Your task to perform on an android device: move a message to another label in the gmail app Image 0: 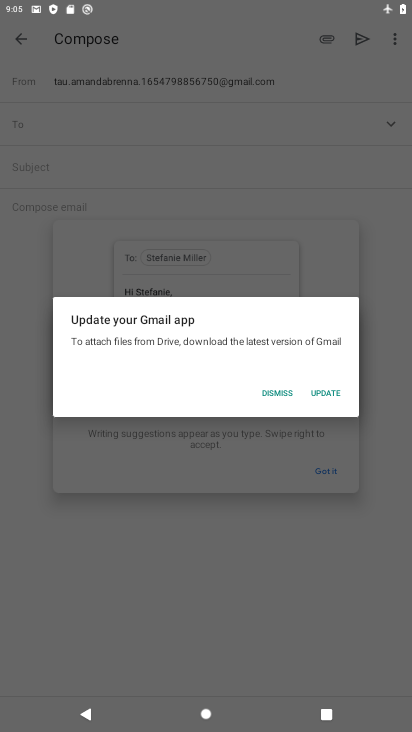
Step 0: press home button
Your task to perform on an android device: move a message to another label in the gmail app Image 1: 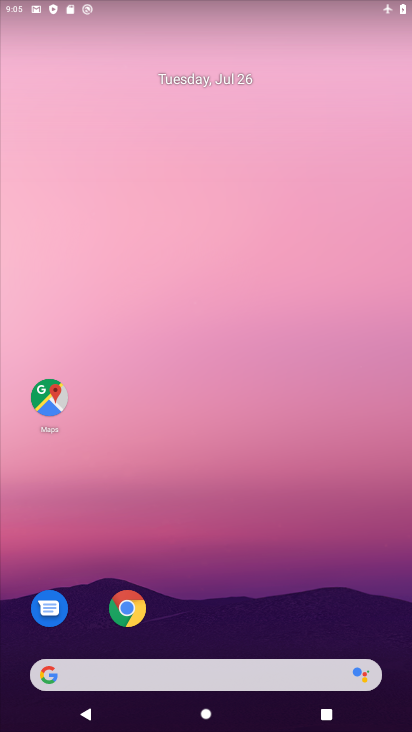
Step 1: drag from (243, 561) to (263, 233)
Your task to perform on an android device: move a message to another label in the gmail app Image 2: 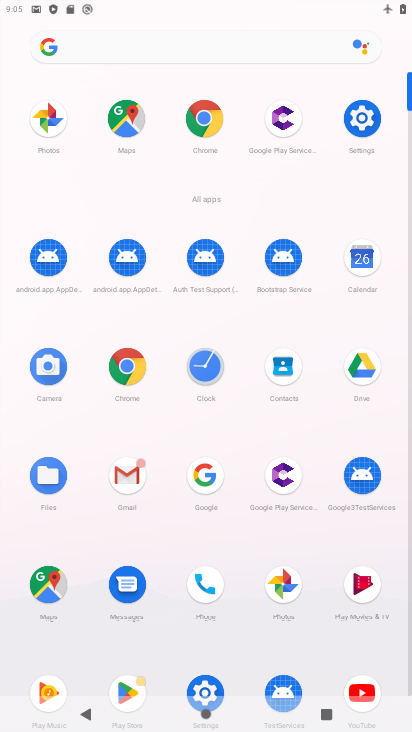
Step 2: click (139, 487)
Your task to perform on an android device: move a message to another label in the gmail app Image 3: 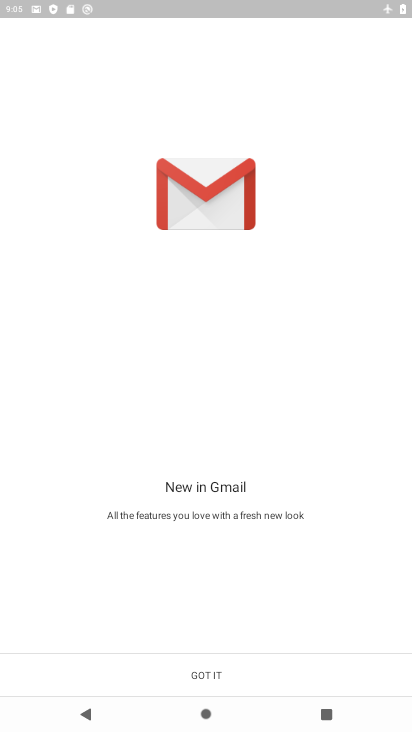
Step 3: click (265, 670)
Your task to perform on an android device: move a message to another label in the gmail app Image 4: 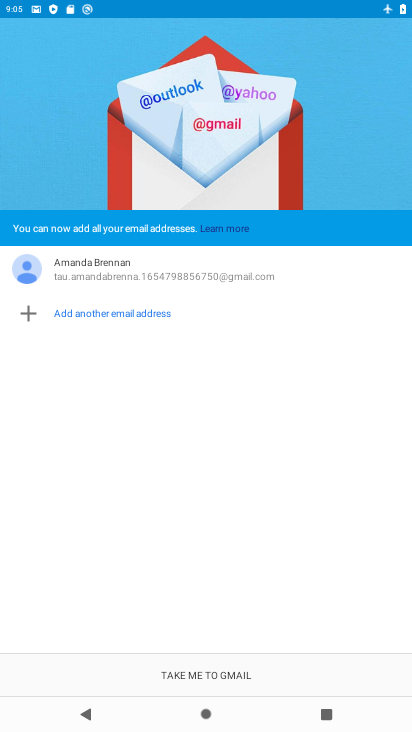
Step 4: click (268, 665)
Your task to perform on an android device: move a message to another label in the gmail app Image 5: 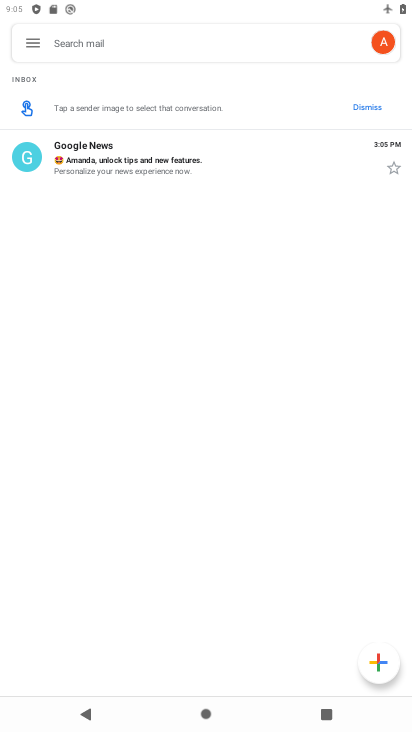
Step 5: click (208, 162)
Your task to perform on an android device: move a message to another label in the gmail app Image 6: 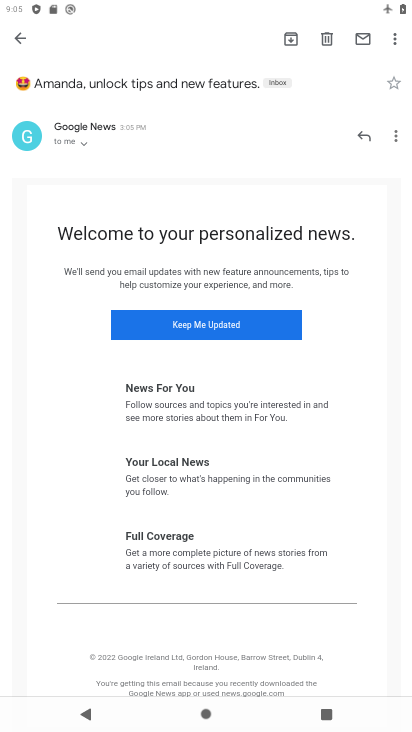
Step 6: click (393, 35)
Your task to perform on an android device: move a message to another label in the gmail app Image 7: 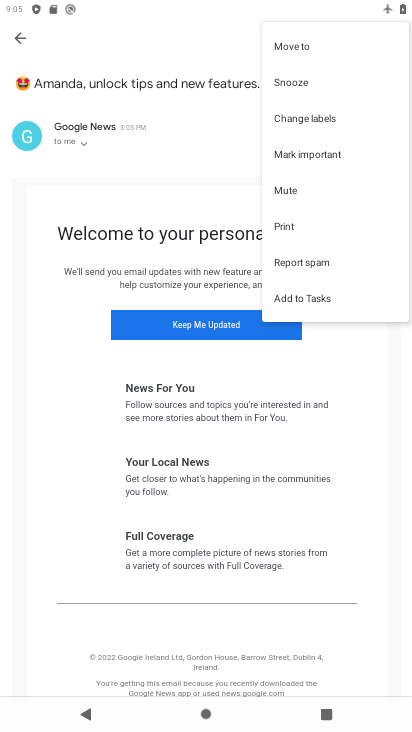
Step 7: click (349, 111)
Your task to perform on an android device: move a message to another label in the gmail app Image 8: 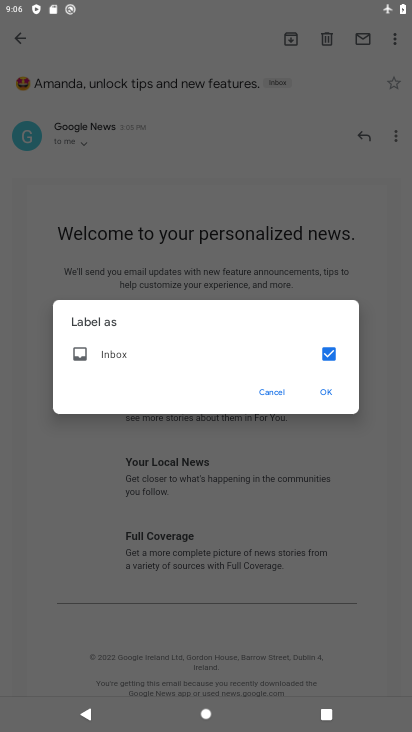
Step 8: click (319, 394)
Your task to perform on an android device: move a message to another label in the gmail app Image 9: 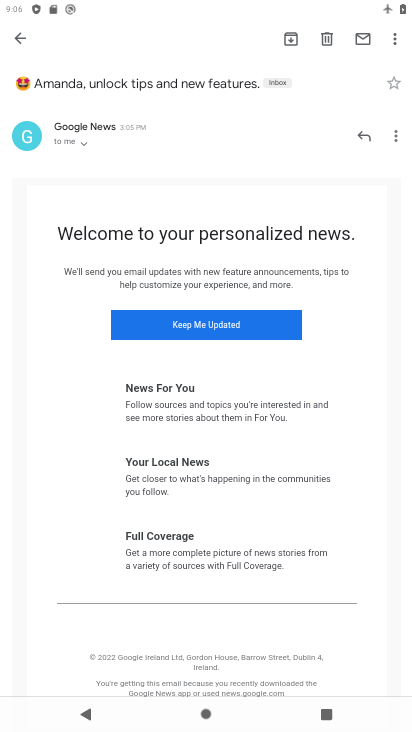
Step 9: task complete